Your task to perform on an android device: Open my contact list Image 0: 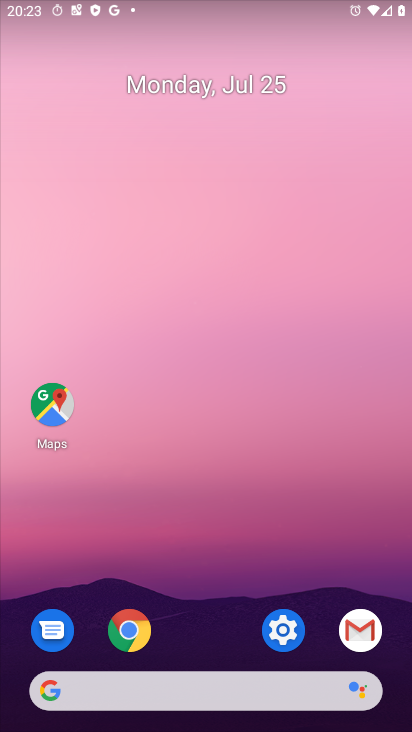
Step 0: drag from (330, 715) to (191, 79)
Your task to perform on an android device: Open my contact list Image 1: 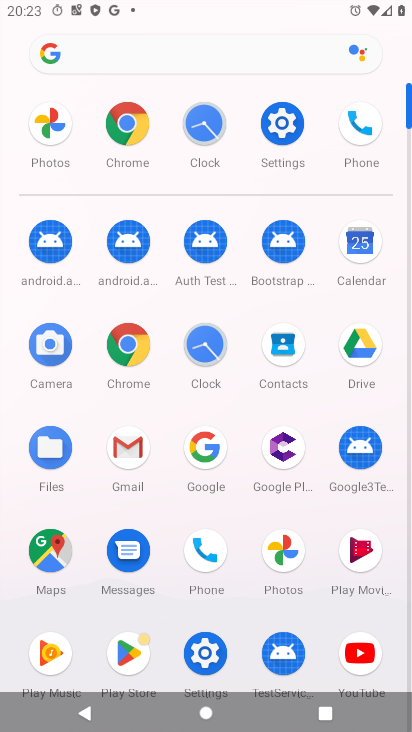
Step 1: click (200, 542)
Your task to perform on an android device: Open my contact list Image 2: 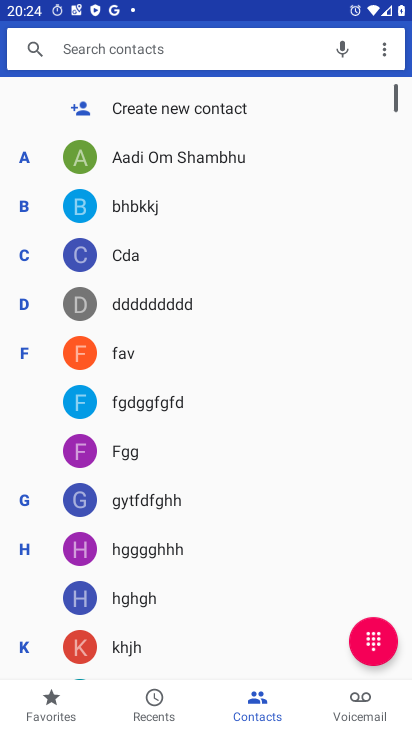
Step 2: task complete